Your task to perform on an android device: Open wifi settings Image 0: 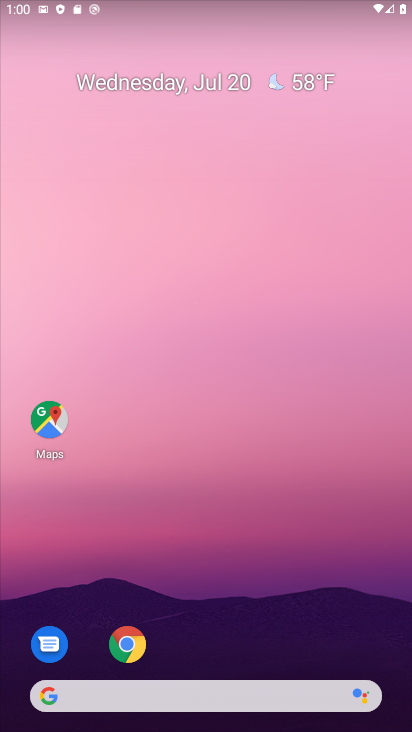
Step 0: drag from (217, 654) to (232, 109)
Your task to perform on an android device: Open wifi settings Image 1: 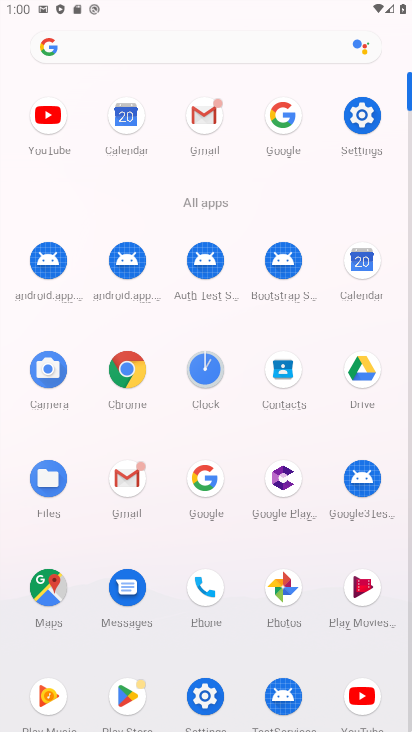
Step 1: click (365, 116)
Your task to perform on an android device: Open wifi settings Image 2: 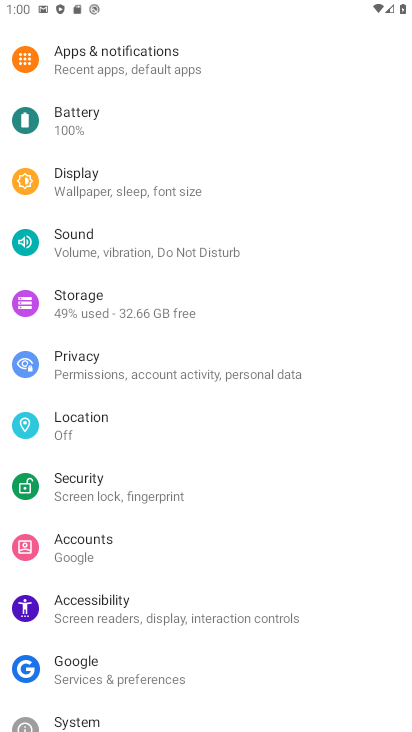
Step 2: drag from (132, 66) to (184, 377)
Your task to perform on an android device: Open wifi settings Image 3: 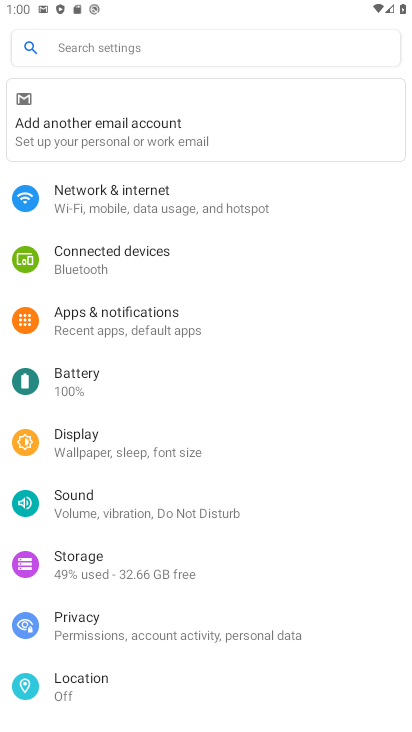
Step 3: click (133, 195)
Your task to perform on an android device: Open wifi settings Image 4: 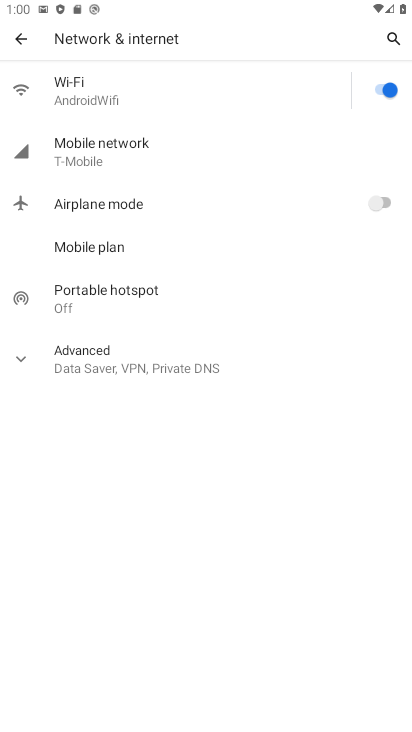
Step 4: click (120, 90)
Your task to perform on an android device: Open wifi settings Image 5: 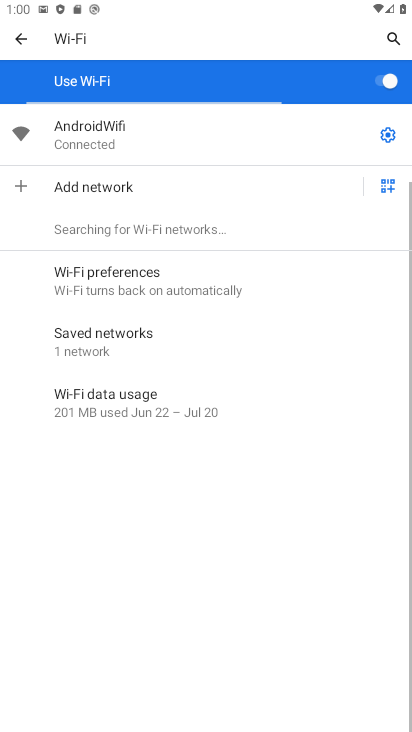
Step 5: click (187, 136)
Your task to perform on an android device: Open wifi settings Image 6: 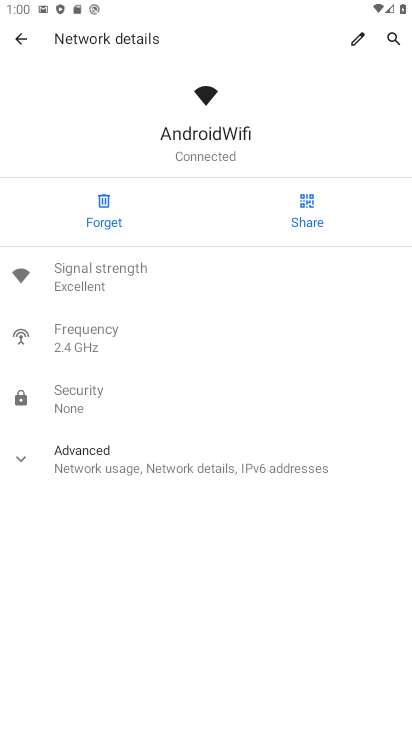
Step 6: task complete